Your task to perform on an android device: set the stopwatch Image 0: 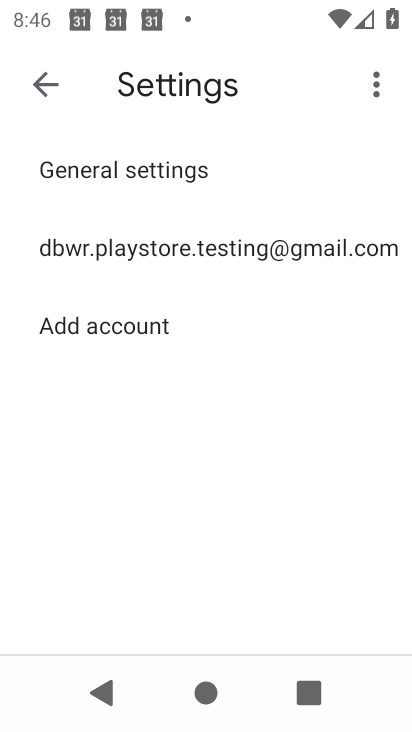
Step 0: press home button
Your task to perform on an android device: set the stopwatch Image 1: 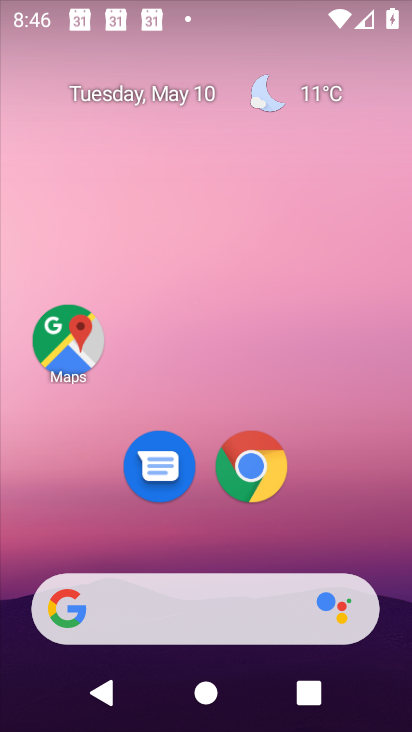
Step 1: drag from (221, 522) to (262, 60)
Your task to perform on an android device: set the stopwatch Image 2: 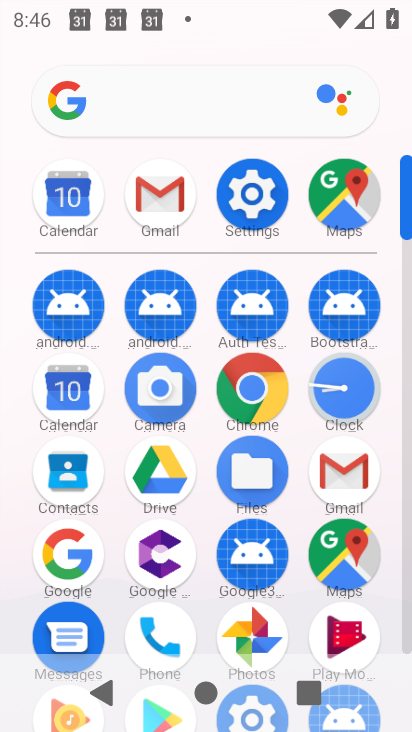
Step 2: click (337, 399)
Your task to perform on an android device: set the stopwatch Image 3: 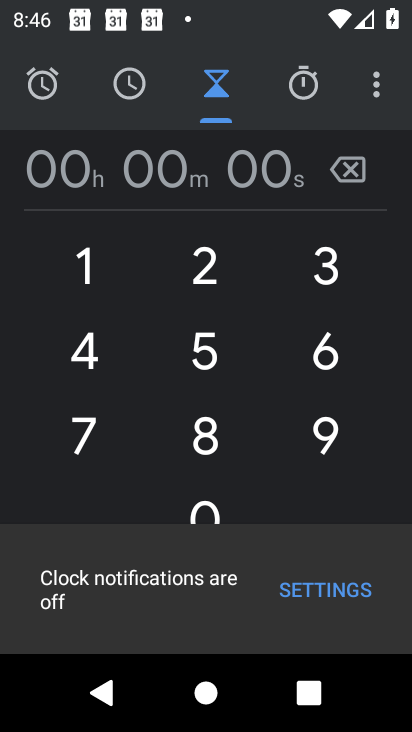
Step 3: click (299, 112)
Your task to perform on an android device: set the stopwatch Image 4: 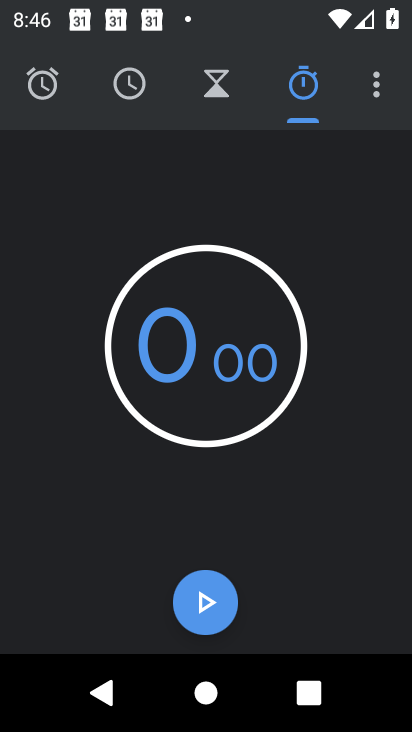
Step 4: click (198, 485)
Your task to perform on an android device: set the stopwatch Image 5: 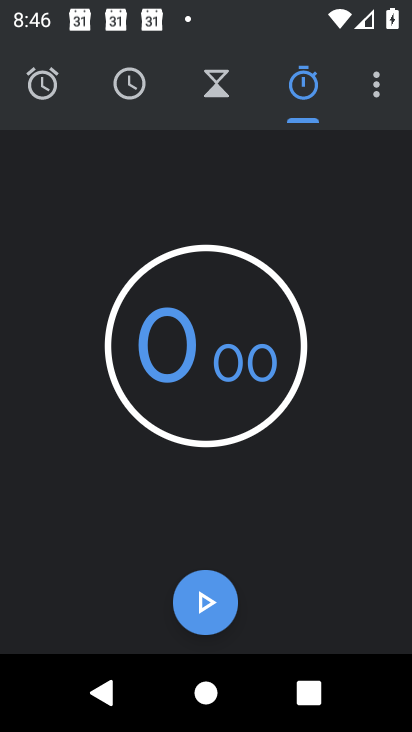
Step 5: click (207, 576)
Your task to perform on an android device: set the stopwatch Image 6: 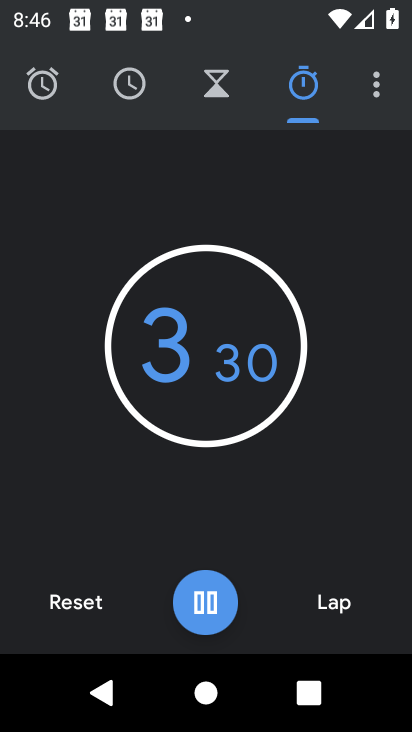
Step 6: task complete